Your task to perform on an android device: choose inbox layout in the gmail app Image 0: 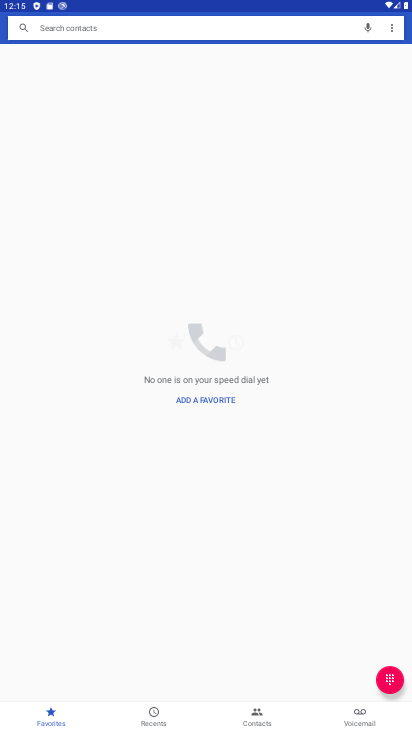
Step 0: press home button
Your task to perform on an android device: choose inbox layout in the gmail app Image 1: 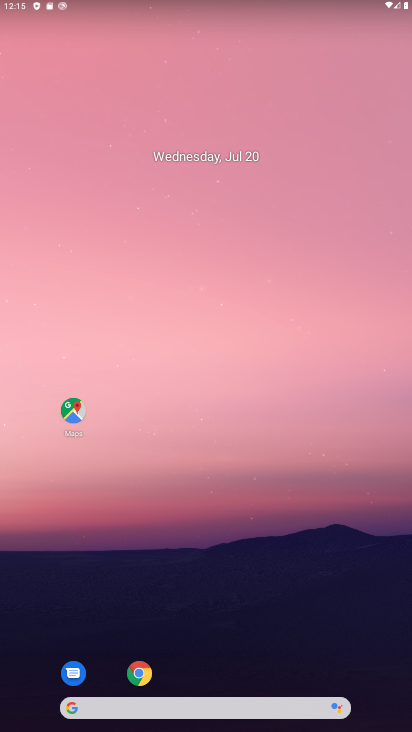
Step 1: drag from (230, 657) to (247, 101)
Your task to perform on an android device: choose inbox layout in the gmail app Image 2: 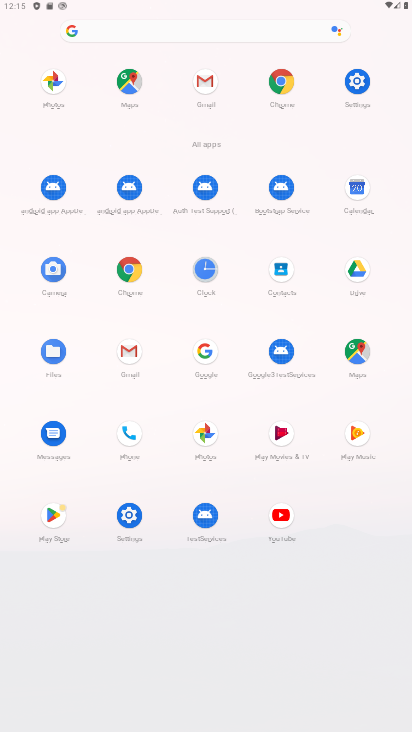
Step 2: click (128, 358)
Your task to perform on an android device: choose inbox layout in the gmail app Image 3: 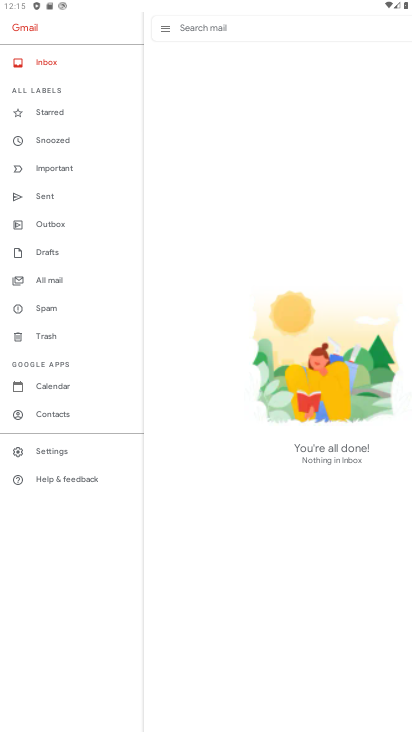
Step 3: click (49, 456)
Your task to perform on an android device: choose inbox layout in the gmail app Image 4: 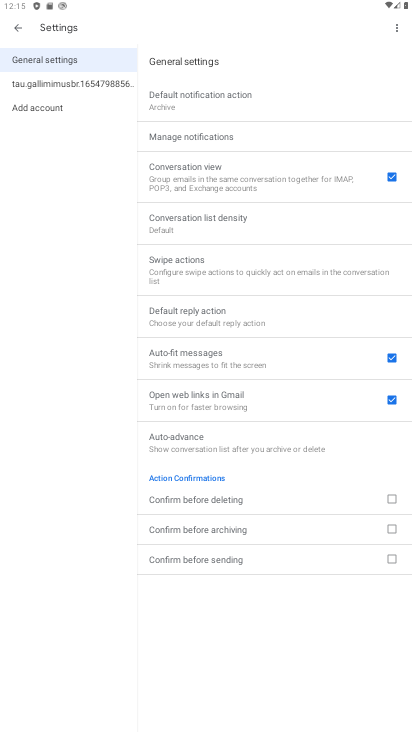
Step 4: click (91, 82)
Your task to perform on an android device: choose inbox layout in the gmail app Image 5: 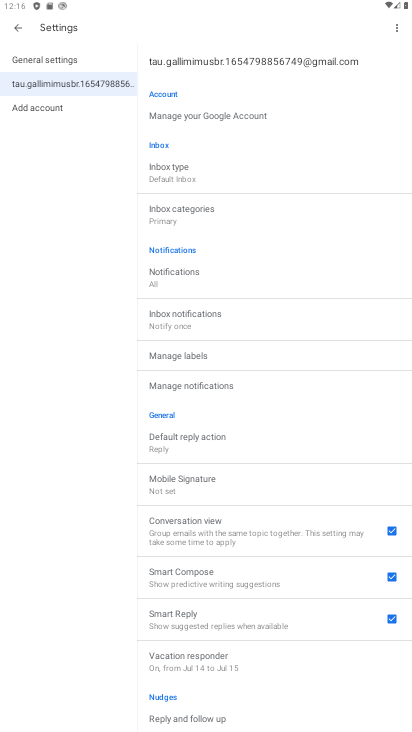
Step 5: click (197, 175)
Your task to perform on an android device: choose inbox layout in the gmail app Image 6: 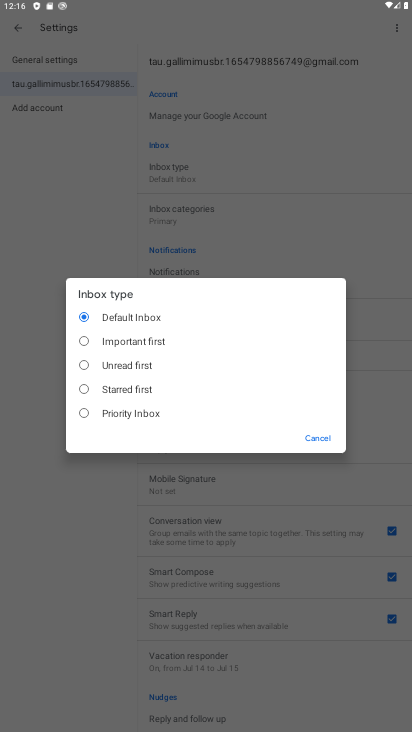
Step 6: click (102, 346)
Your task to perform on an android device: choose inbox layout in the gmail app Image 7: 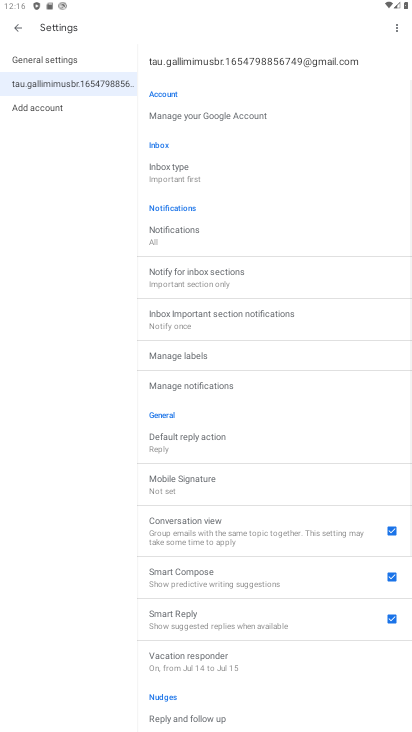
Step 7: task complete